Your task to perform on an android device: What's on my calendar tomorrow? Image 0: 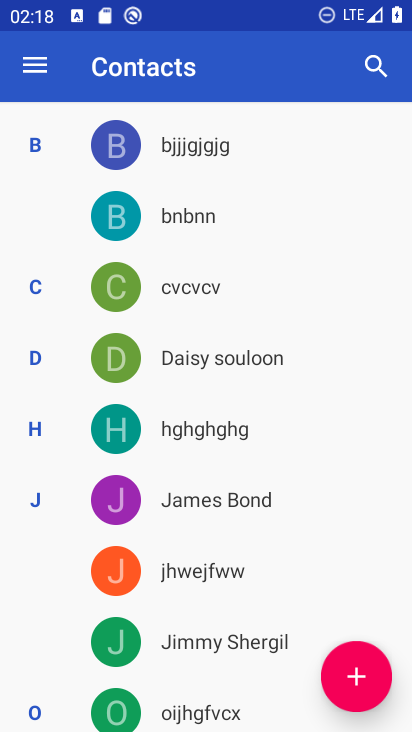
Step 0: press home button
Your task to perform on an android device: What's on my calendar tomorrow? Image 1: 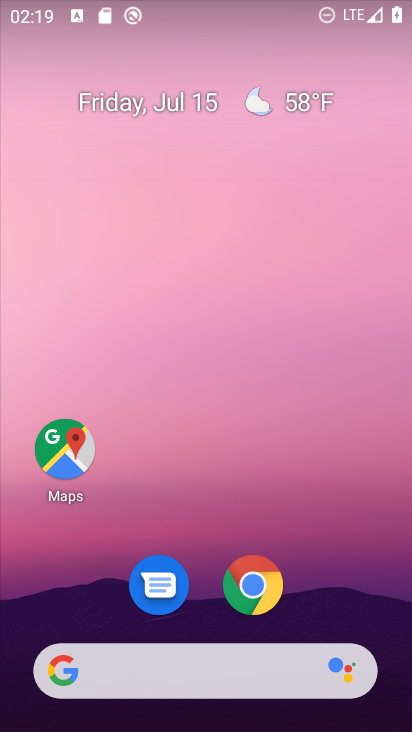
Step 1: drag from (192, 507) to (234, 6)
Your task to perform on an android device: What's on my calendar tomorrow? Image 2: 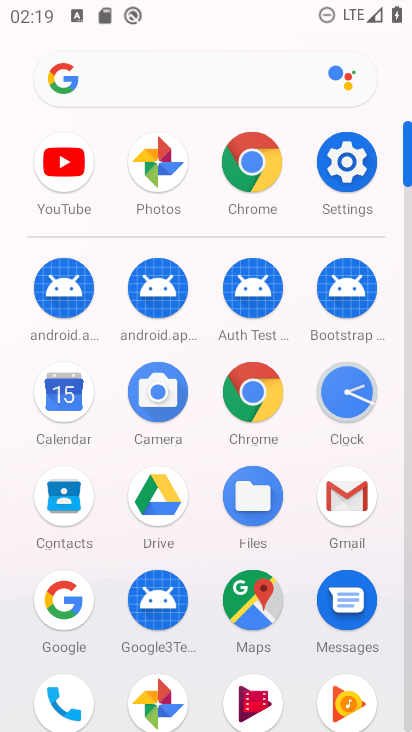
Step 2: click (77, 393)
Your task to perform on an android device: What's on my calendar tomorrow? Image 3: 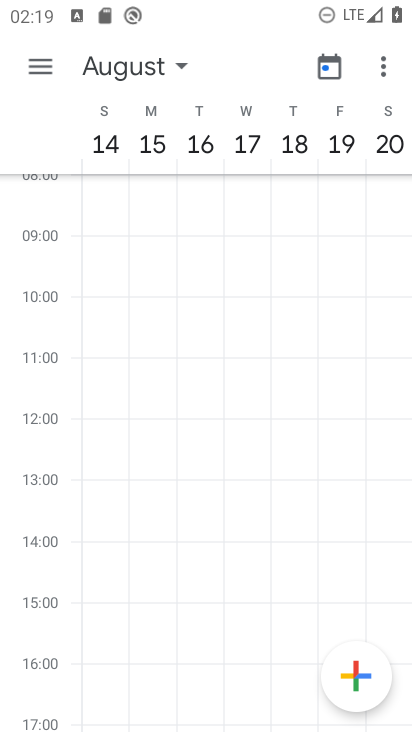
Step 3: task complete